Your task to perform on an android device: turn notification dots on Image 0: 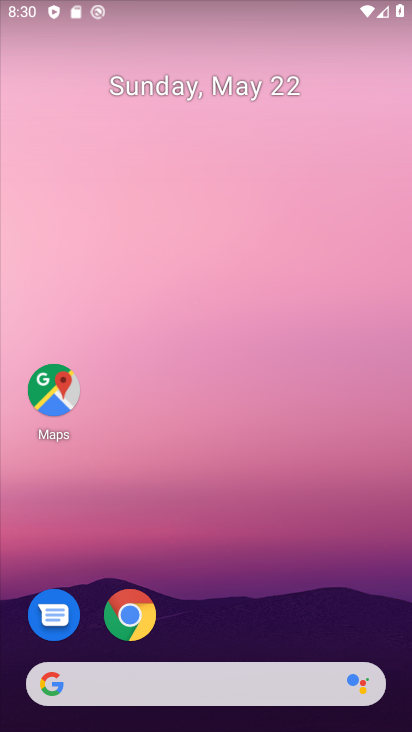
Step 0: drag from (270, 554) to (262, 249)
Your task to perform on an android device: turn notification dots on Image 1: 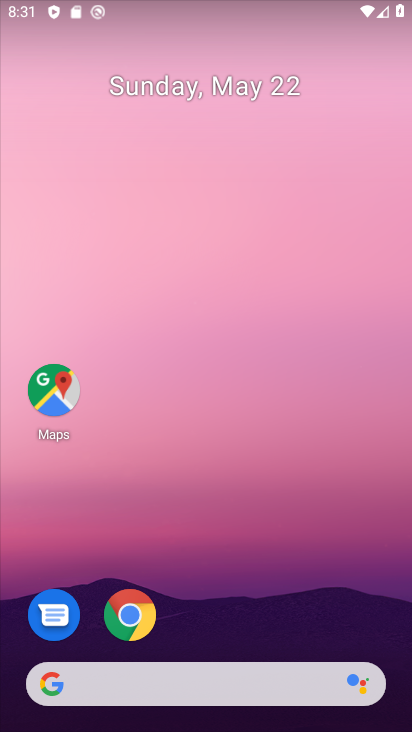
Step 1: click (135, 607)
Your task to perform on an android device: turn notification dots on Image 2: 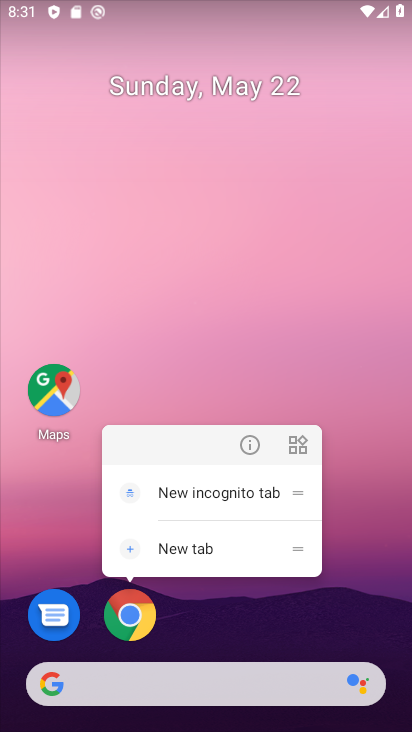
Step 2: click (134, 606)
Your task to perform on an android device: turn notification dots on Image 3: 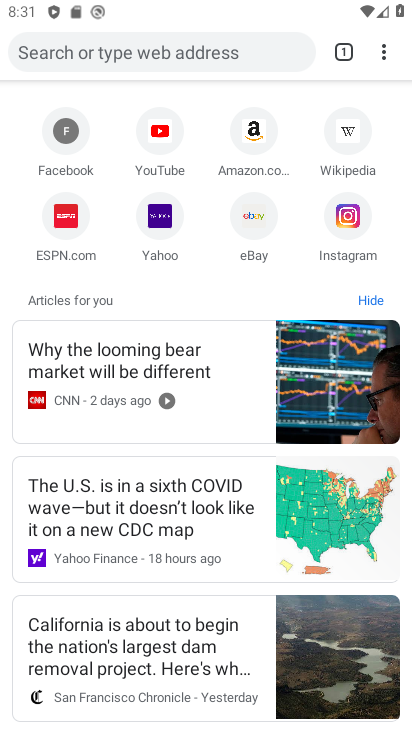
Step 3: click (394, 46)
Your task to perform on an android device: turn notification dots on Image 4: 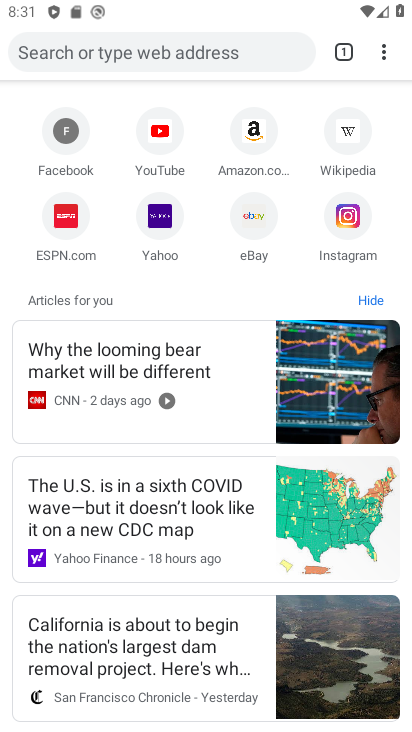
Step 4: click (385, 48)
Your task to perform on an android device: turn notification dots on Image 5: 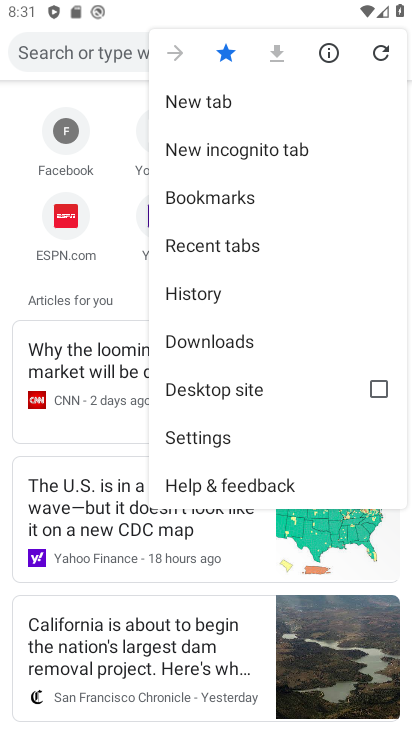
Step 5: click (206, 439)
Your task to perform on an android device: turn notification dots on Image 6: 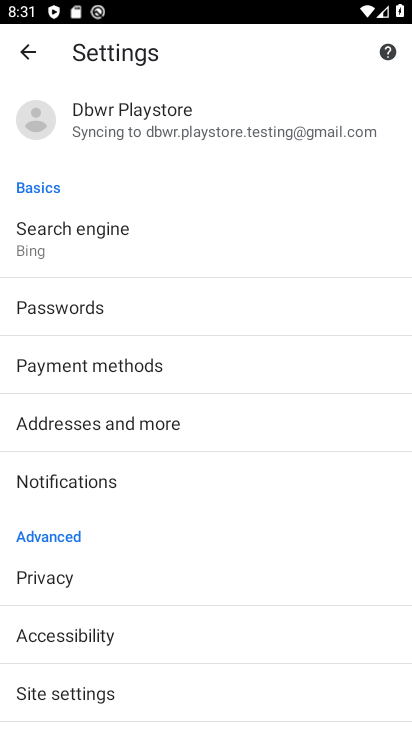
Step 6: click (197, 638)
Your task to perform on an android device: turn notification dots on Image 7: 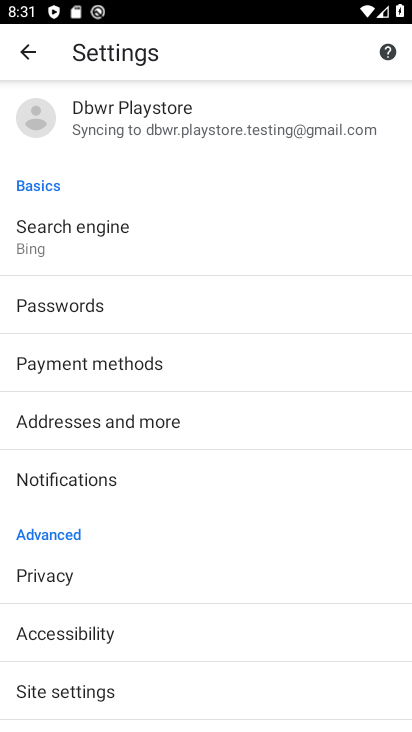
Step 7: press home button
Your task to perform on an android device: turn notification dots on Image 8: 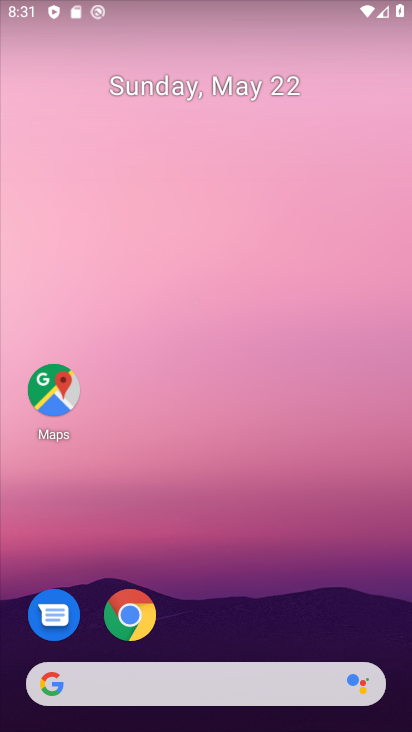
Step 8: drag from (232, 319) to (232, 222)
Your task to perform on an android device: turn notification dots on Image 9: 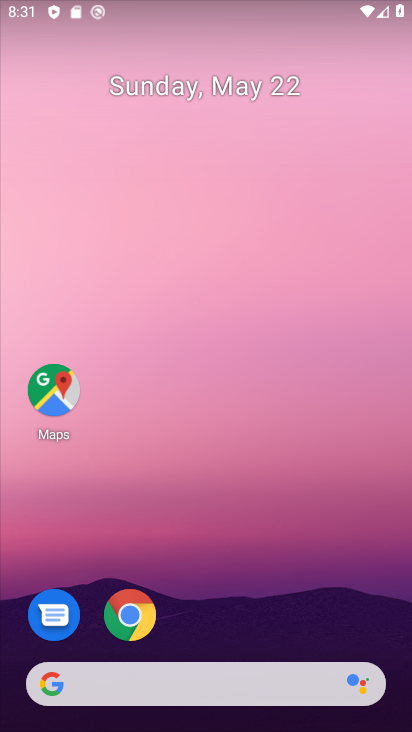
Step 9: drag from (239, 557) to (222, 150)
Your task to perform on an android device: turn notification dots on Image 10: 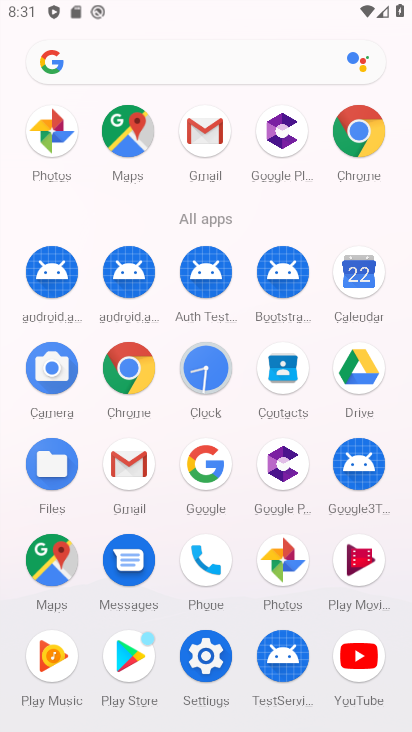
Step 10: click (203, 652)
Your task to perform on an android device: turn notification dots on Image 11: 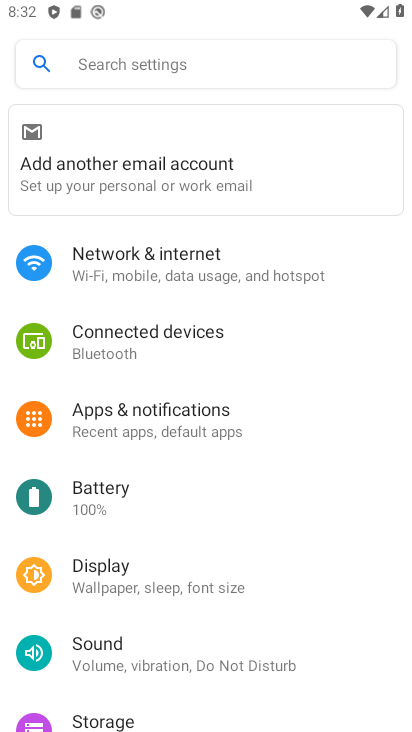
Step 11: click (179, 60)
Your task to perform on an android device: turn notification dots on Image 12: 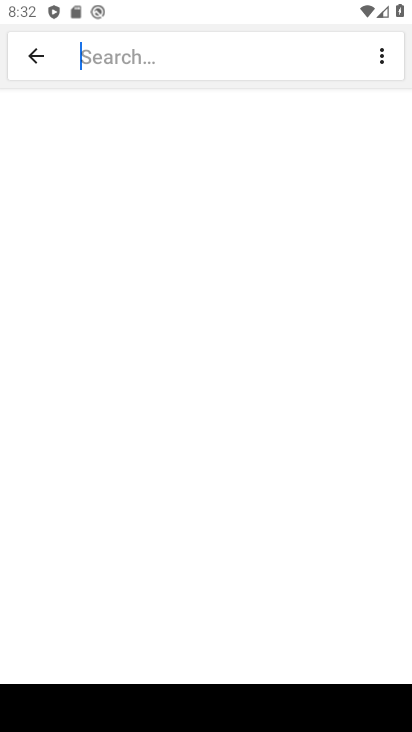
Step 12: click (241, 46)
Your task to perform on an android device: turn notification dots on Image 13: 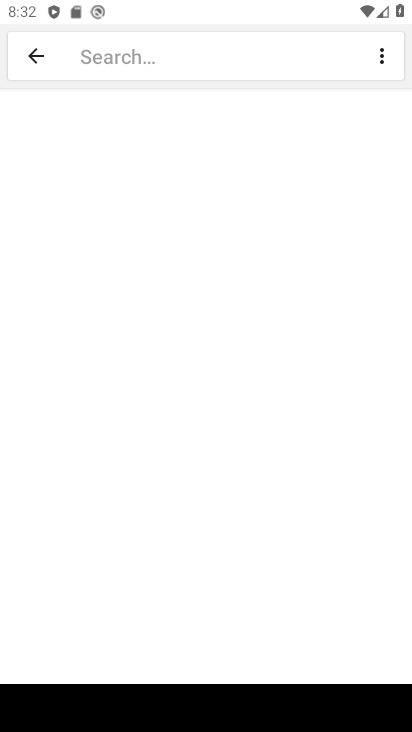
Step 13: type "notification dots"
Your task to perform on an android device: turn notification dots on Image 14: 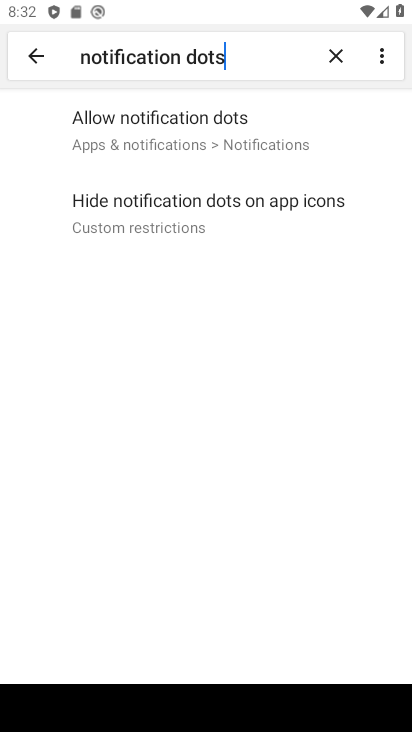
Step 14: drag from (279, 241) to (263, 338)
Your task to perform on an android device: turn notification dots on Image 15: 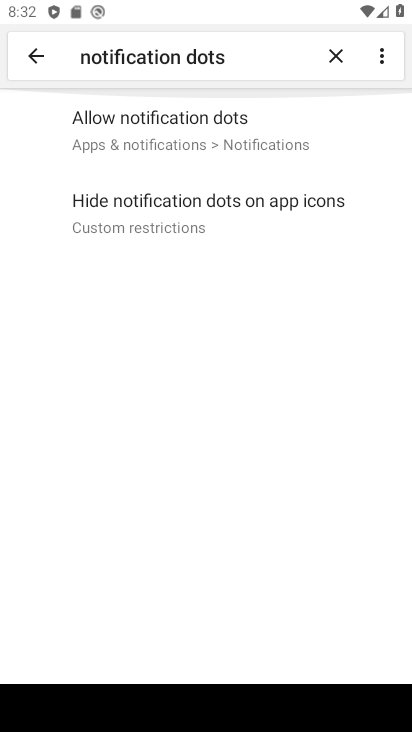
Step 15: click (236, 108)
Your task to perform on an android device: turn notification dots on Image 16: 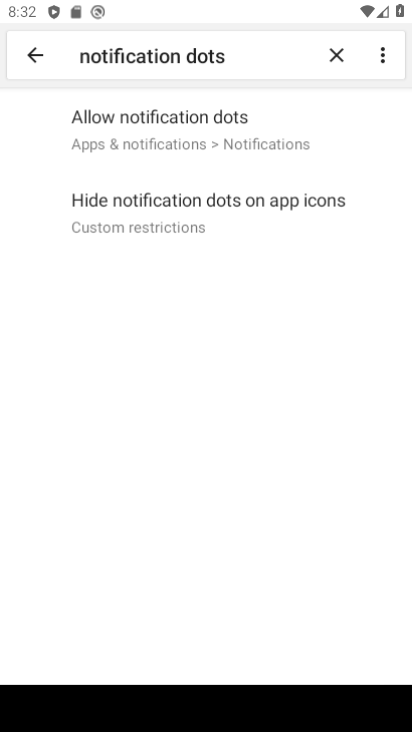
Step 16: click (233, 115)
Your task to perform on an android device: turn notification dots on Image 17: 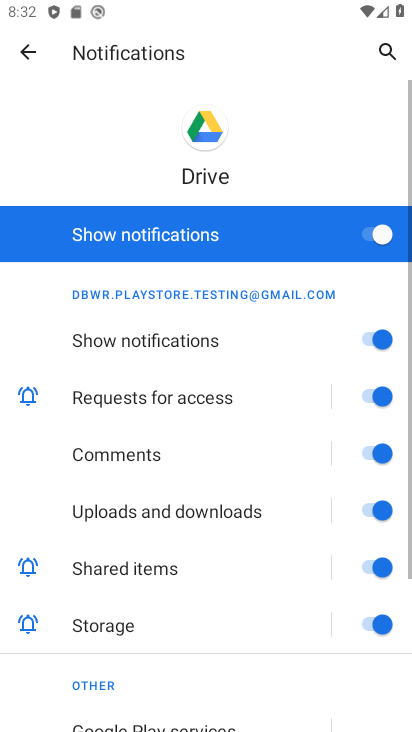
Step 17: task complete